Your task to perform on an android device: turn smart compose on in the gmail app Image 0: 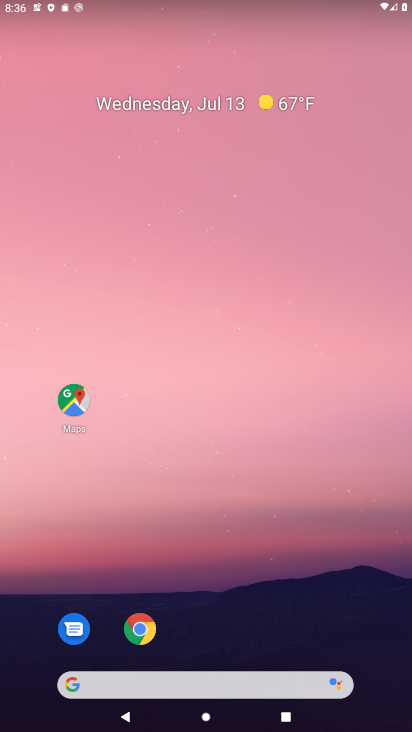
Step 0: drag from (222, 614) to (275, 8)
Your task to perform on an android device: turn smart compose on in the gmail app Image 1: 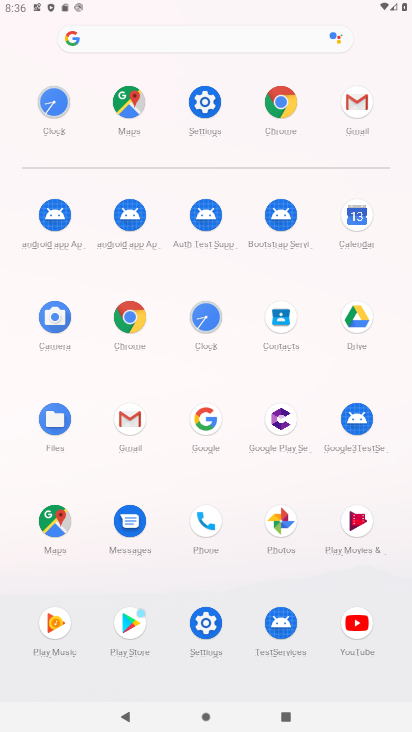
Step 1: click (128, 429)
Your task to perform on an android device: turn smart compose on in the gmail app Image 2: 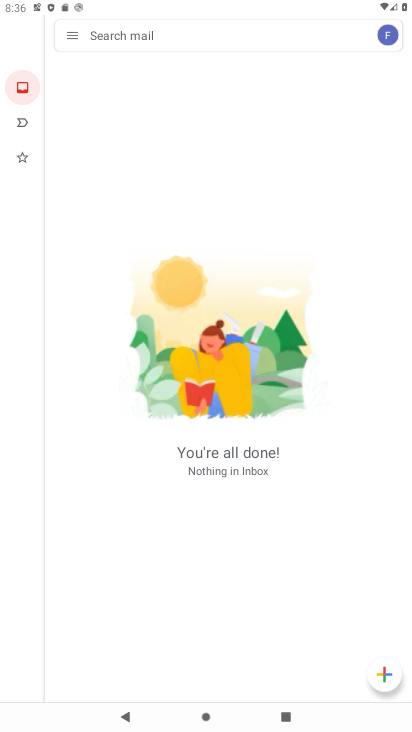
Step 2: click (61, 25)
Your task to perform on an android device: turn smart compose on in the gmail app Image 3: 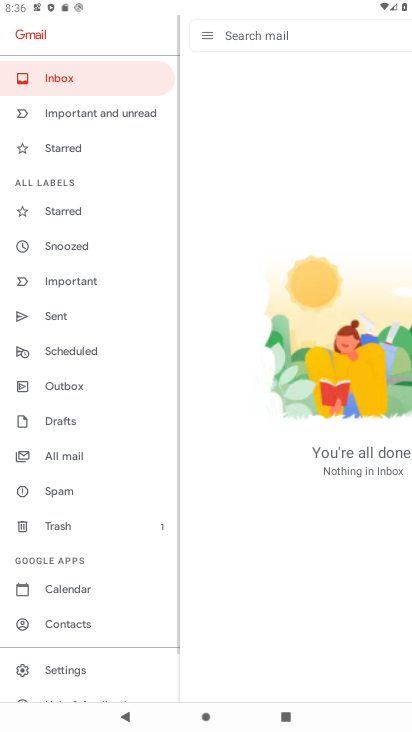
Step 3: drag from (73, 615) to (131, 132)
Your task to perform on an android device: turn smart compose on in the gmail app Image 4: 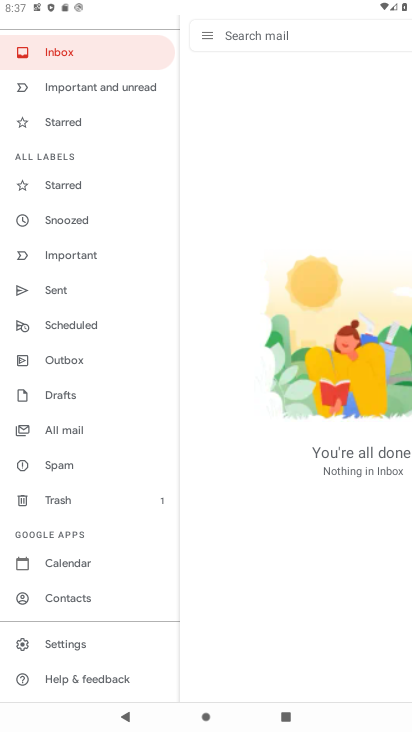
Step 4: click (74, 642)
Your task to perform on an android device: turn smart compose on in the gmail app Image 5: 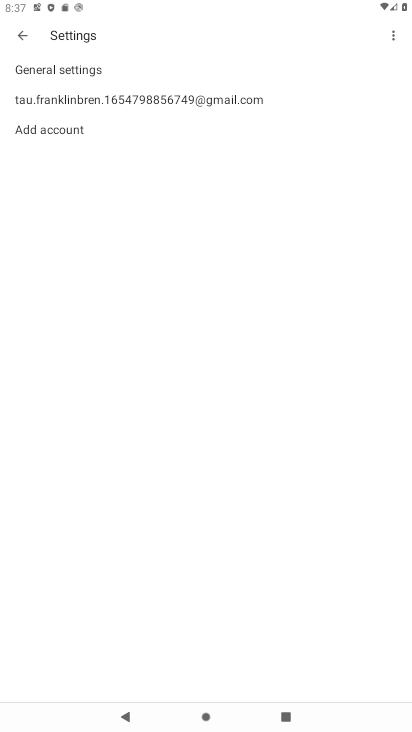
Step 5: click (132, 99)
Your task to perform on an android device: turn smart compose on in the gmail app Image 6: 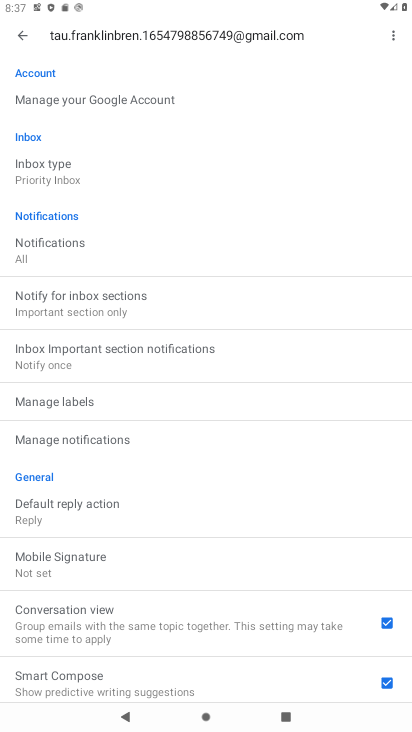
Step 6: task complete